Your task to perform on an android device: change the clock display to analog Image 0: 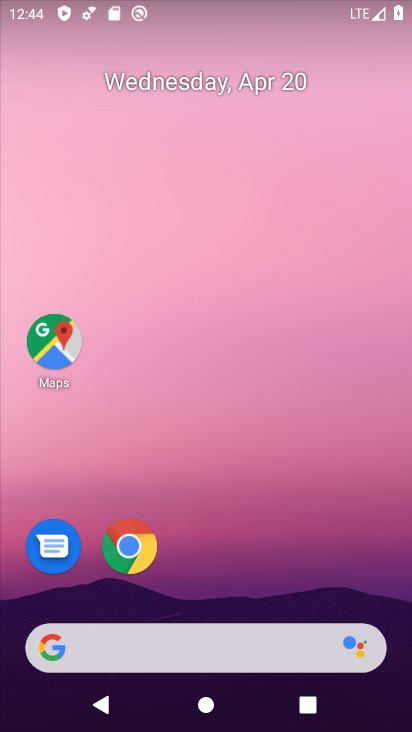
Step 0: drag from (191, 560) to (260, 181)
Your task to perform on an android device: change the clock display to analog Image 1: 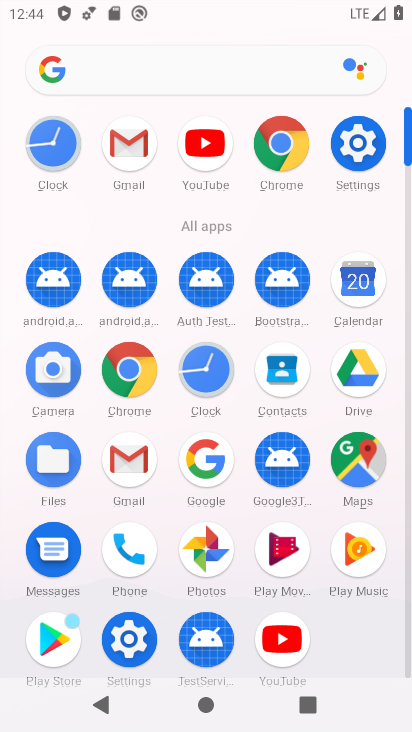
Step 1: click (202, 382)
Your task to perform on an android device: change the clock display to analog Image 2: 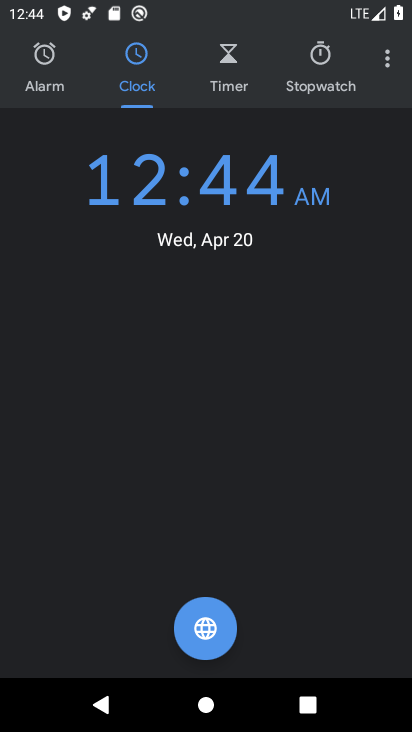
Step 2: click (378, 64)
Your task to perform on an android device: change the clock display to analog Image 3: 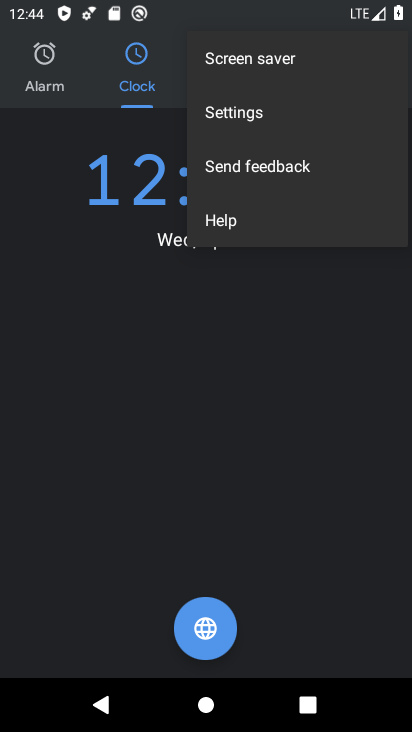
Step 3: click (334, 110)
Your task to perform on an android device: change the clock display to analog Image 4: 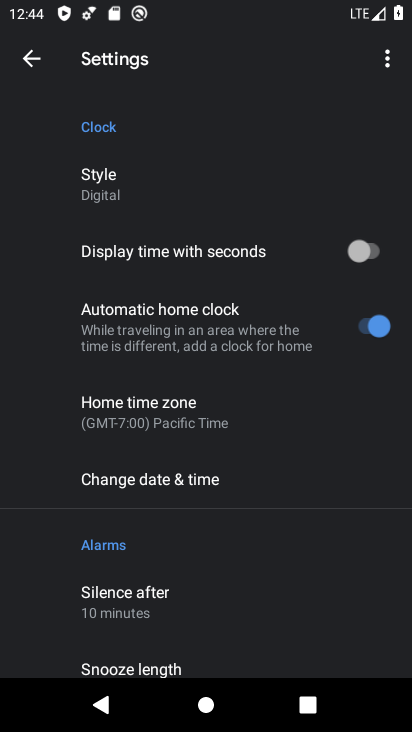
Step 4: click (197, 190)
Your task to perform on an android device: change the clock display to analog Image 5: 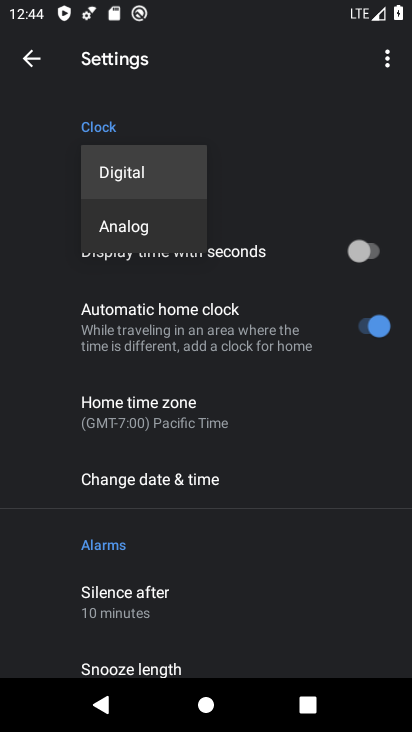
Step 5: click (171, 233)
Your task to perform on an android device: change the clock display to analog Image 6: 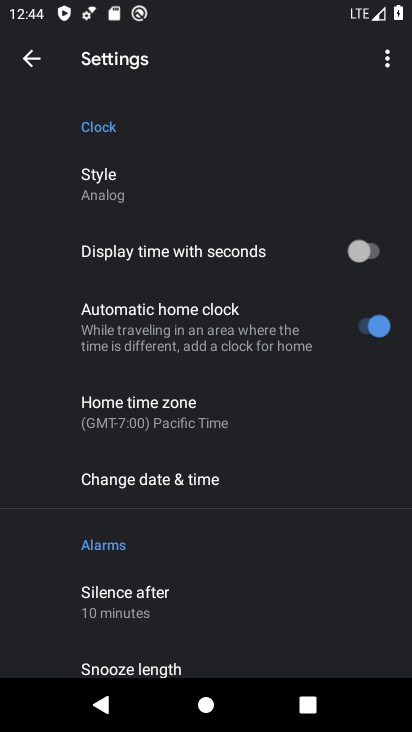
Step 6: task complete